Your task to perform on an android device: What is the recent news? Image 0: 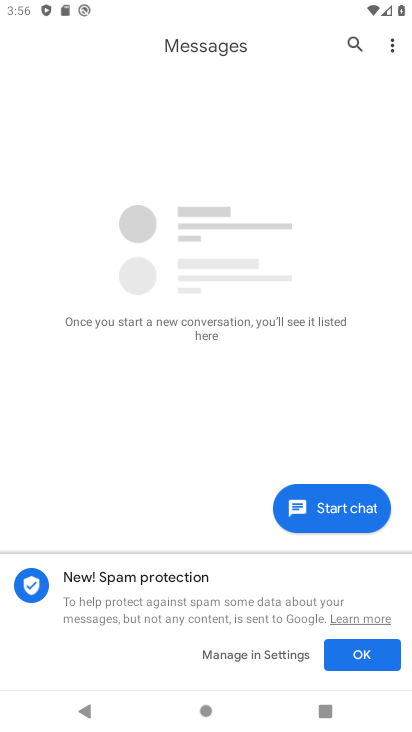
Step 0: press home button
Your task to perform on an android device: What is the recent news? Image 1: 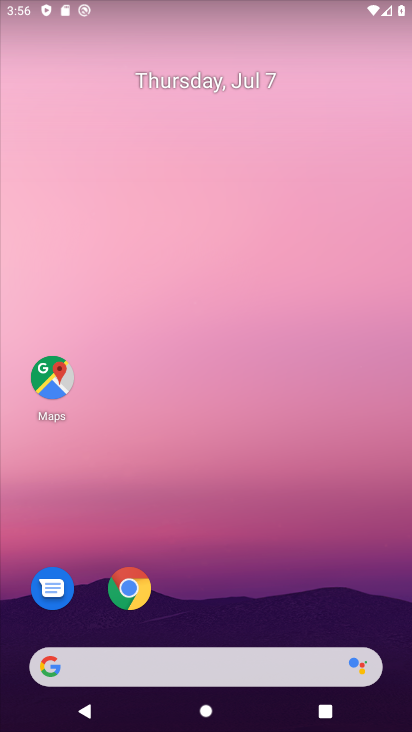
Step 1: click (48, 669)
Your task to perform on an android device: What is the recent news? Image 2: 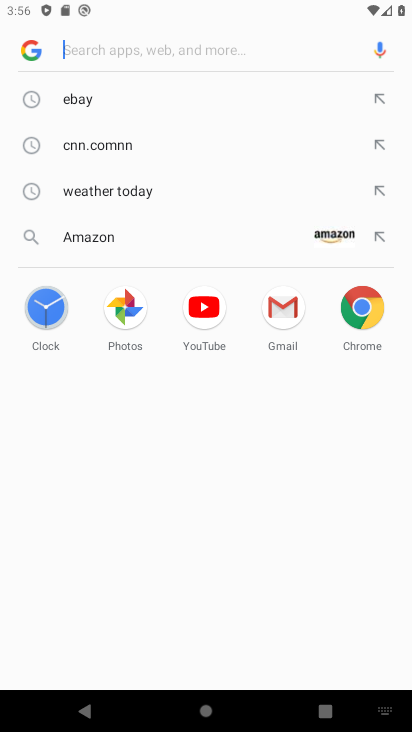
Step 2: type "recent news?"
Your task to perform on an android device: What is the recent news? Image 3: 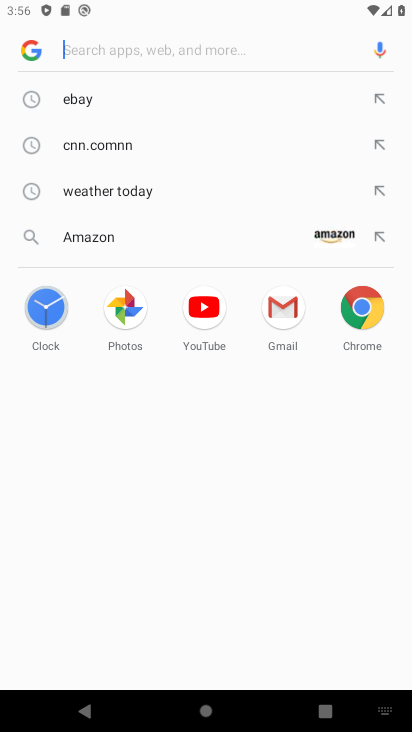
Step 3: click (178, 47)
Your task to perform on an android device: What is the recent news? Image 4: 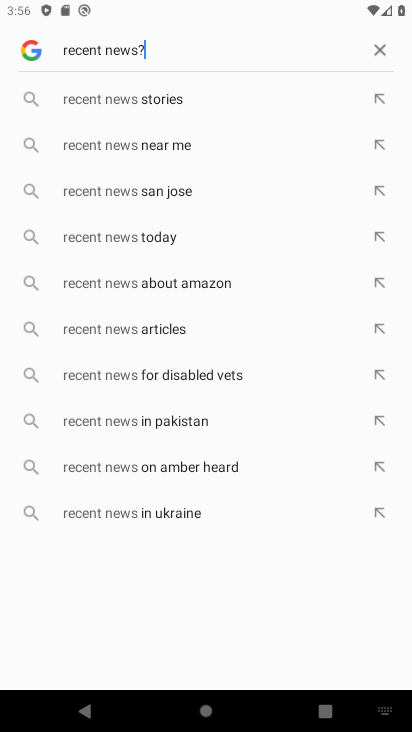
Step 4: click (186, 39)
Your task to perform on an android device: What is the recent news? Image 5: 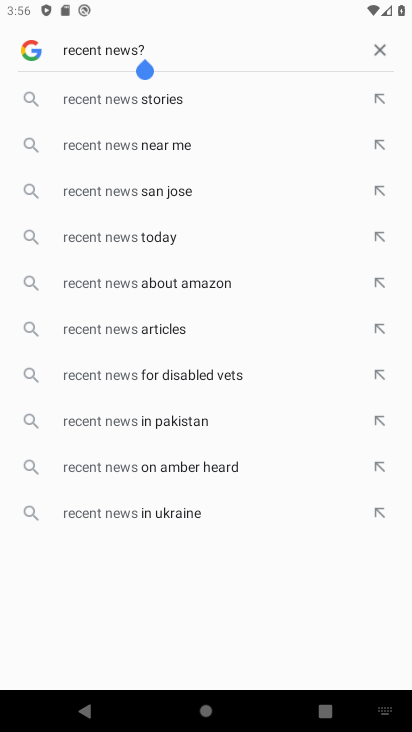
Step 5: click (183, 42)
Your task to perform on an android device: What is the recent news? Image 6: 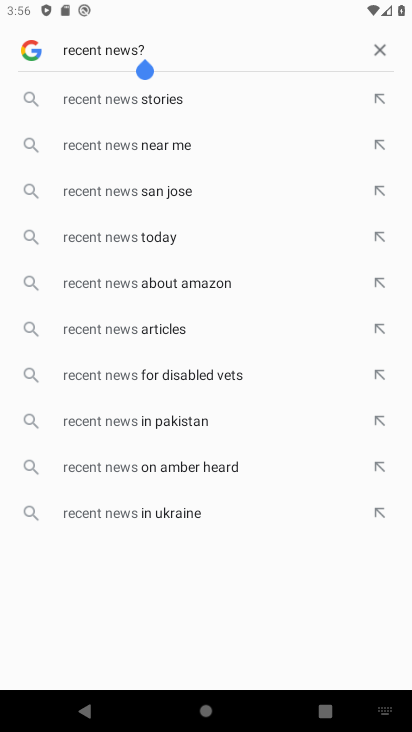
Step 6: click (379, 45)
Your task to perform on an android device: What is the recent news? Image 7: 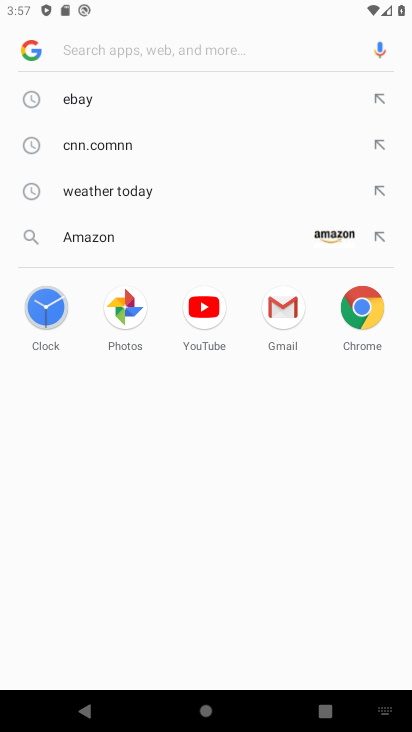
Step 7: type "What is the recent news?"
Your task to perform on an android device: What is the recent news? Image 8: 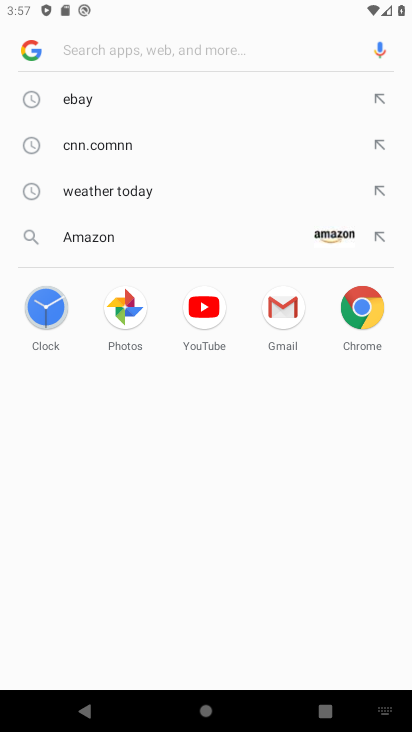
Step 8: click (161, 44)
Your task to perform on an android device: What is the recent news? Image 9: 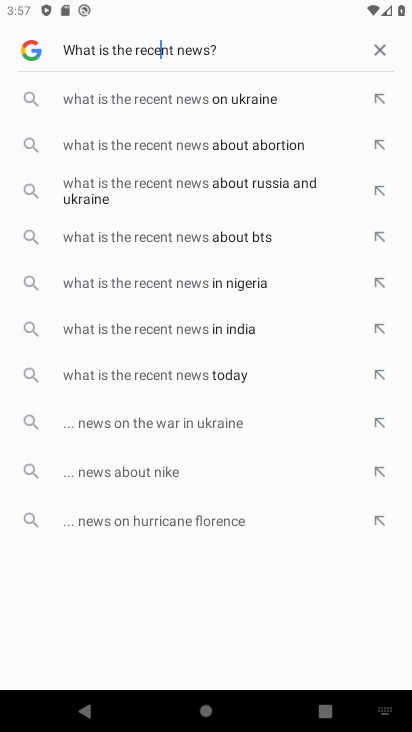
Step 9: click (378, 49)
Your task to perform on an android device: What is the recent news? Image 10: 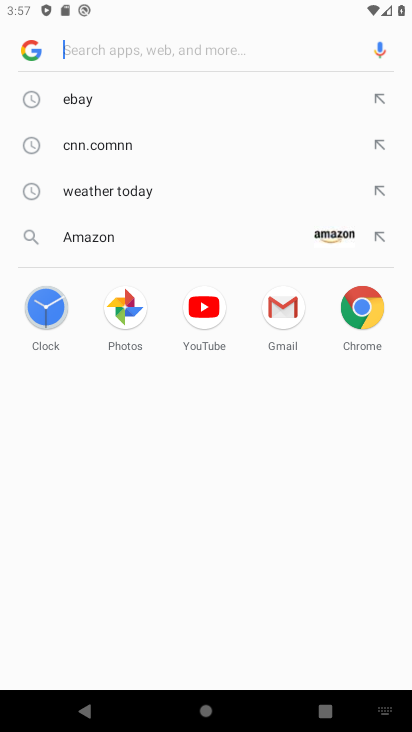
Step 10: type "recent news"
Your task to perform on an android device: What is the recent news? Image 11: 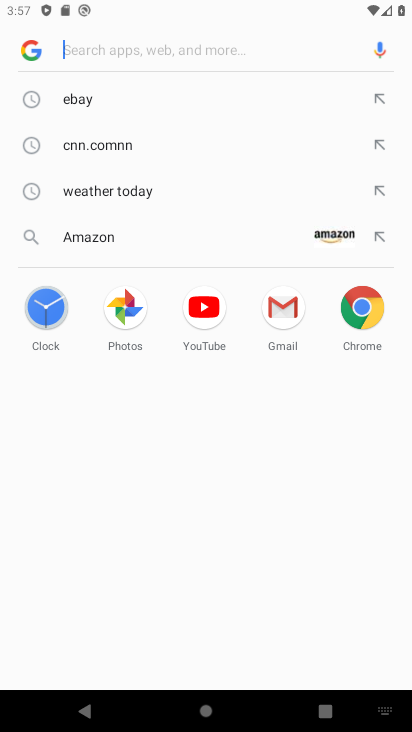
Step 11: click (159, 47)
Your task to perform on an android device: What is the recent news? Image 12: 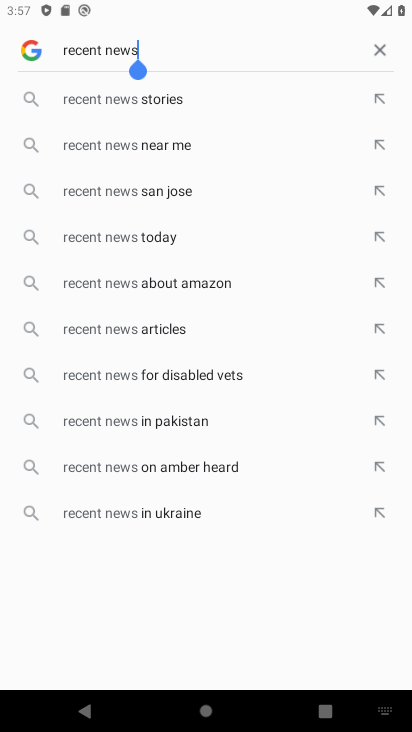
Step 12: click (133, 236)
Your task to perform on an android device: What is the recent news? Image 13: 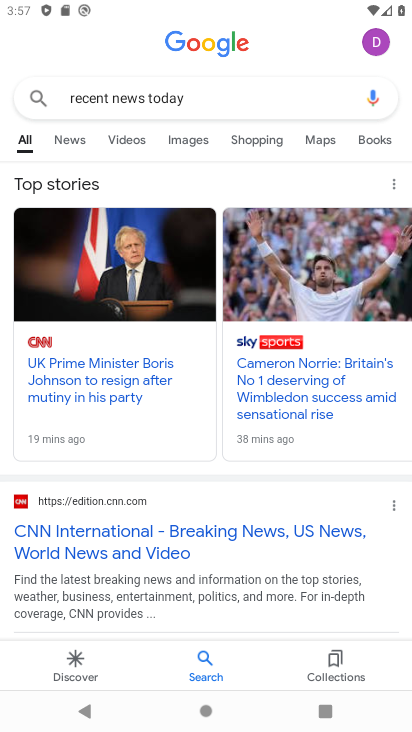
Step 13: task complete